Your task to perform on an android device: Add logitech g933 to the cart on walmart, then select checkout. Image 0: 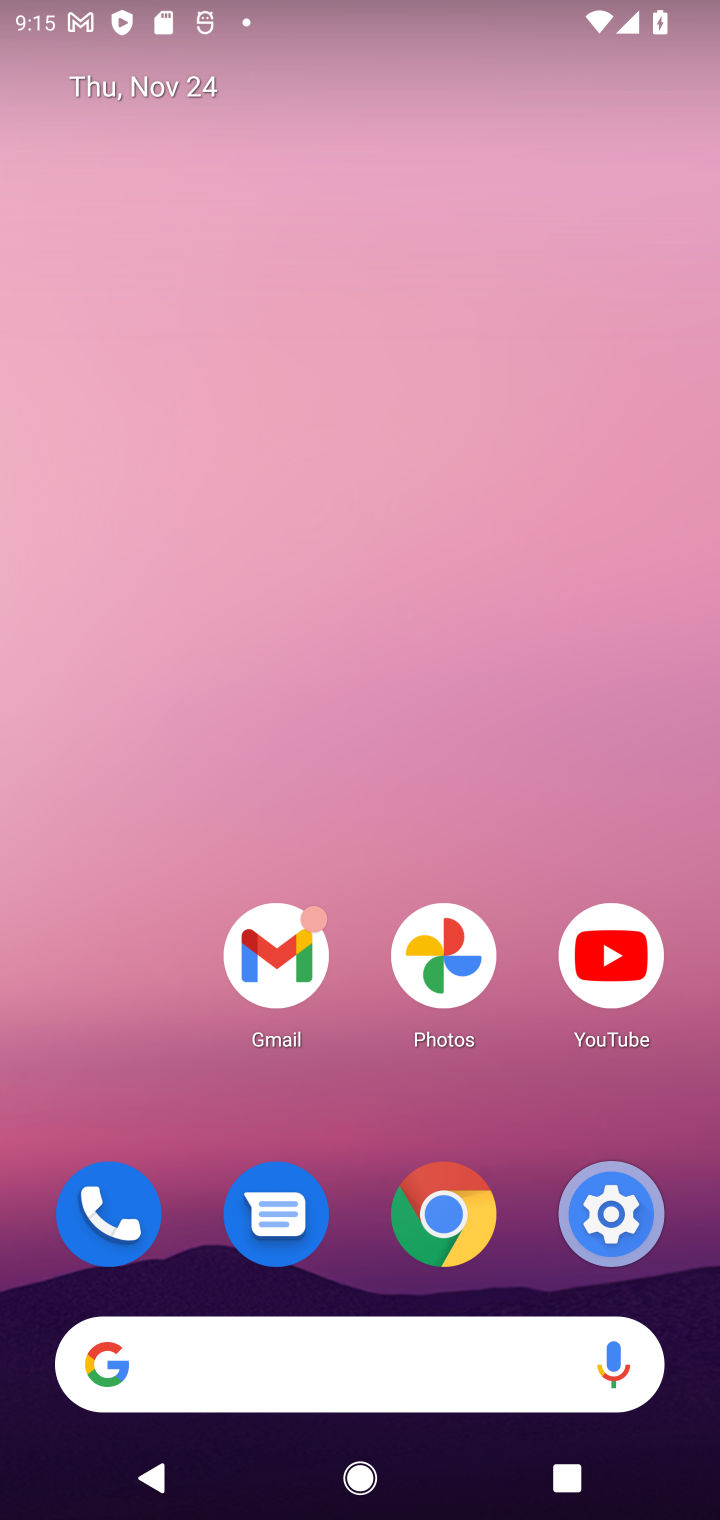
Step 0: click (392, 1347)
Your task to perform on an android device: Add logitech g933 to the cart on walmart, then select checkout. Image 1: 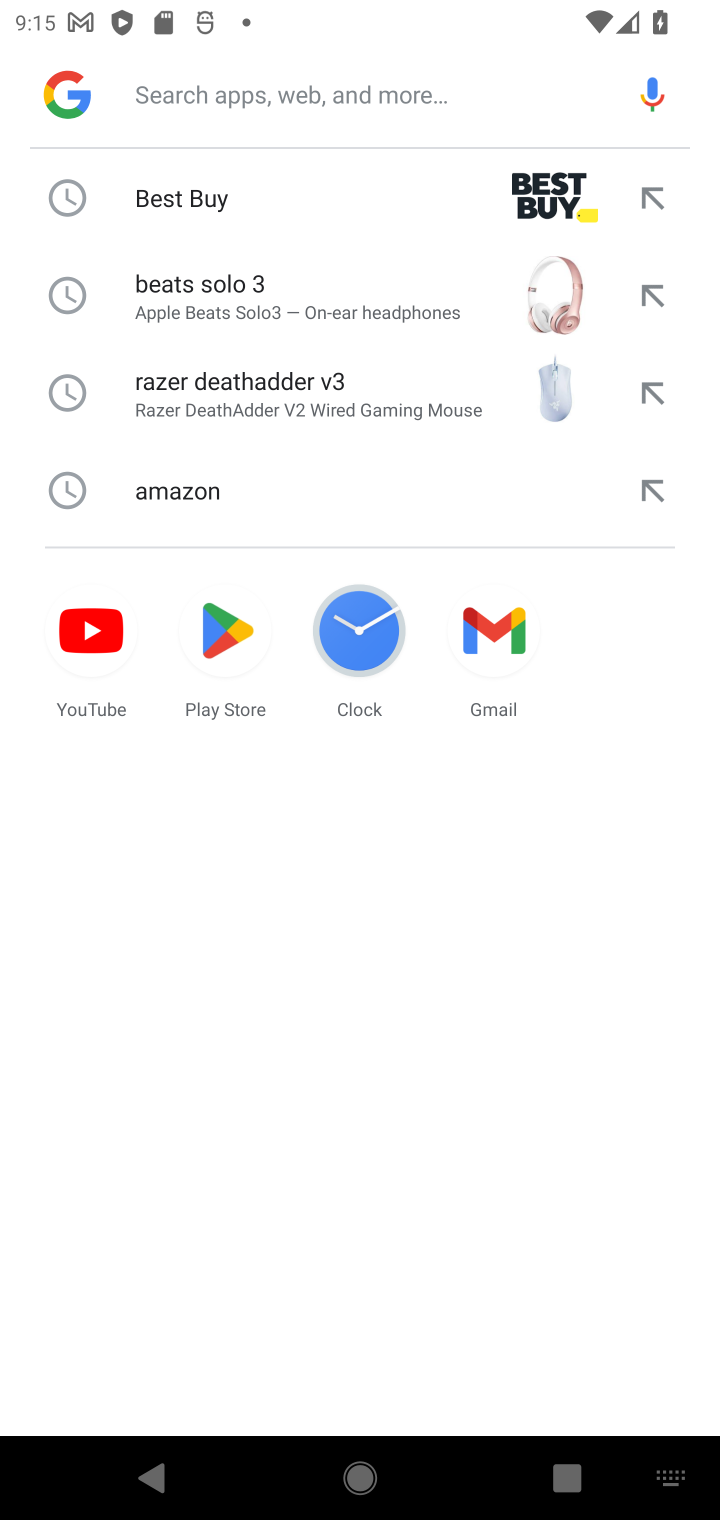
Step 1: type "walmart"
Your task to perform on an android device: Add logitech g933 to the cart on walmart, then select checkout. Image 2: 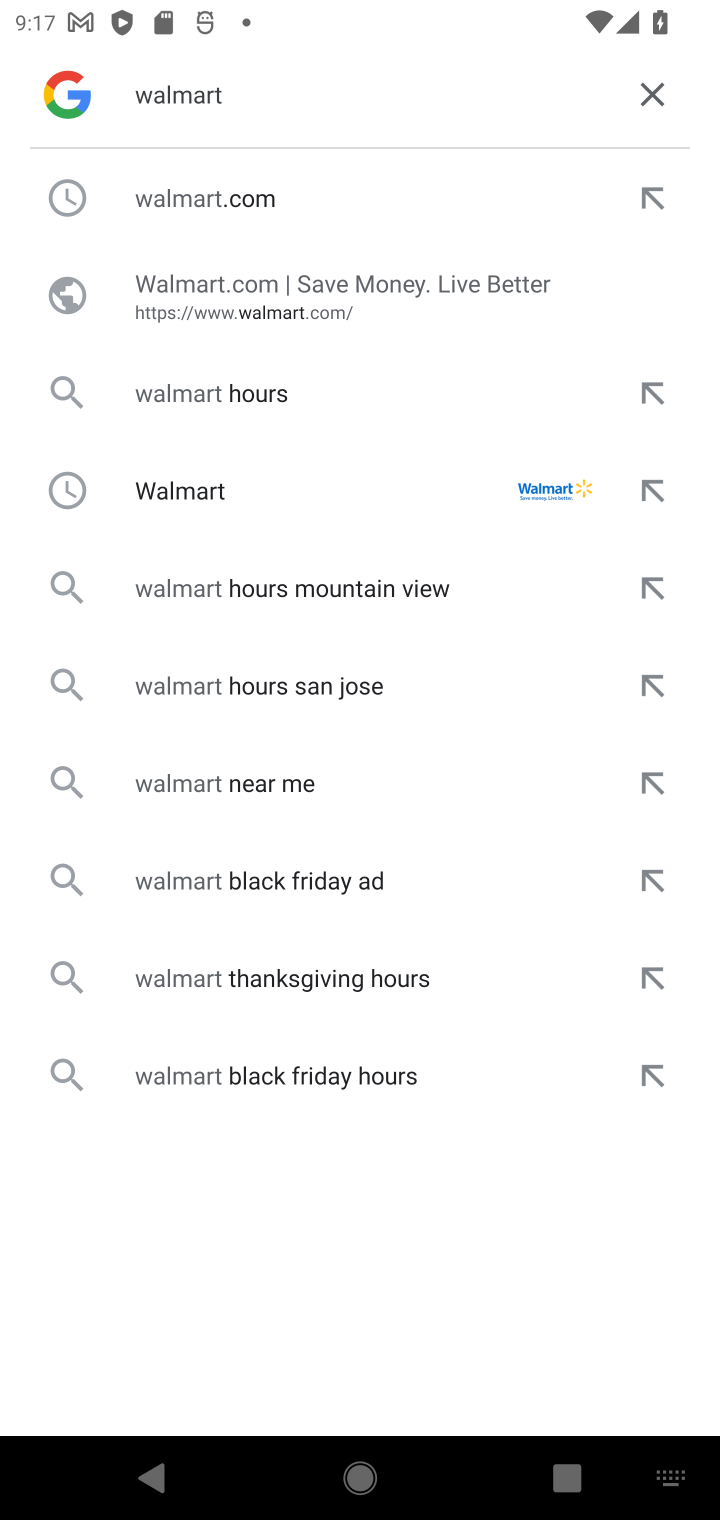
Step 2: click (265, 193)
Your task to perform on an android device: Add logitech g933 to the cart on walmart, then select checkout. Image 3: 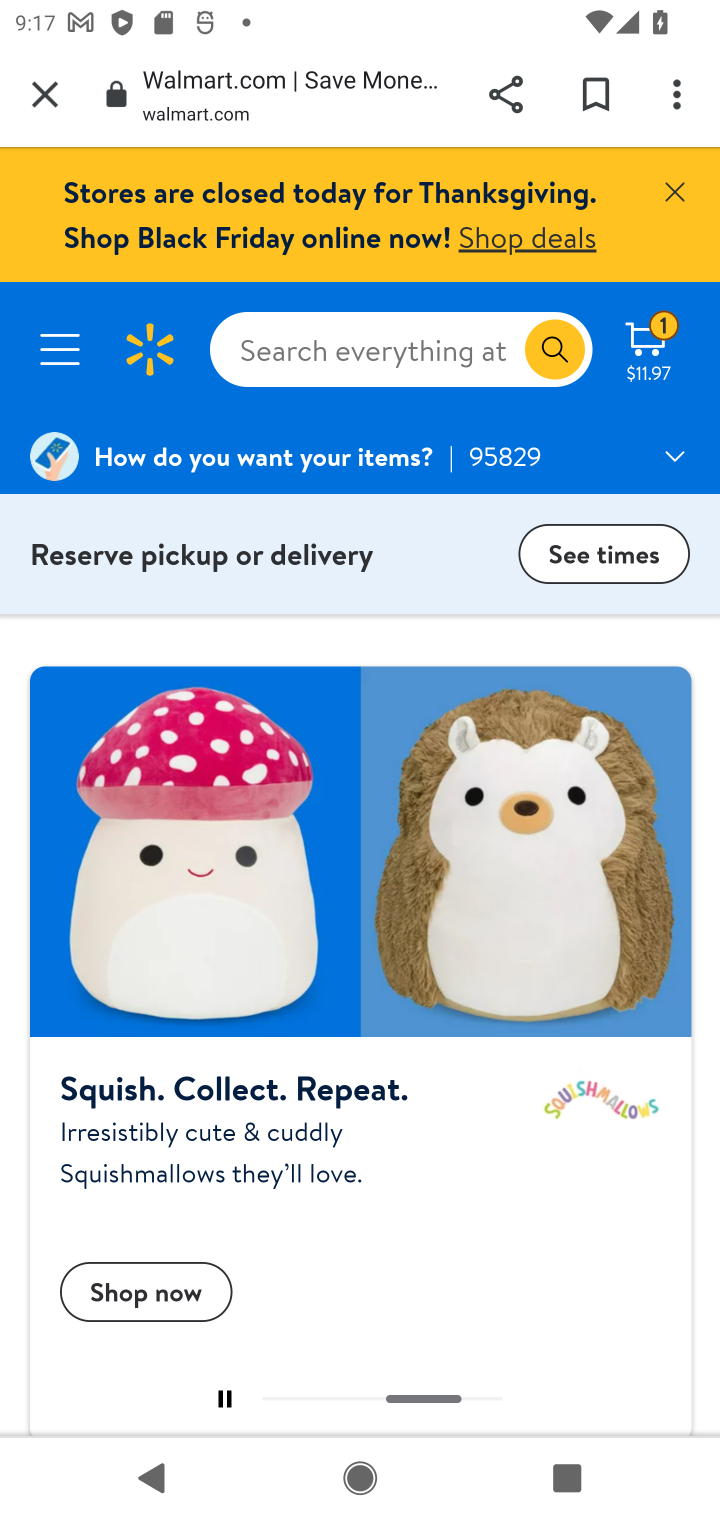
Step 3: task complete